Your task to perform on an android device: Search for a new blush Image 0: 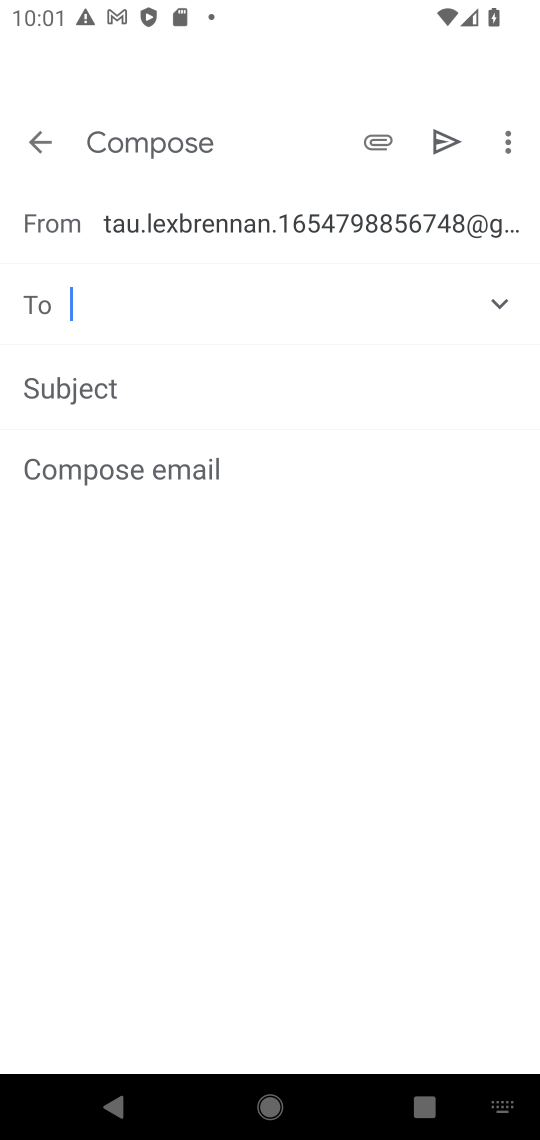
Step 0: press home button
Your task to perform on an android device: Search for a new blush Image 1: 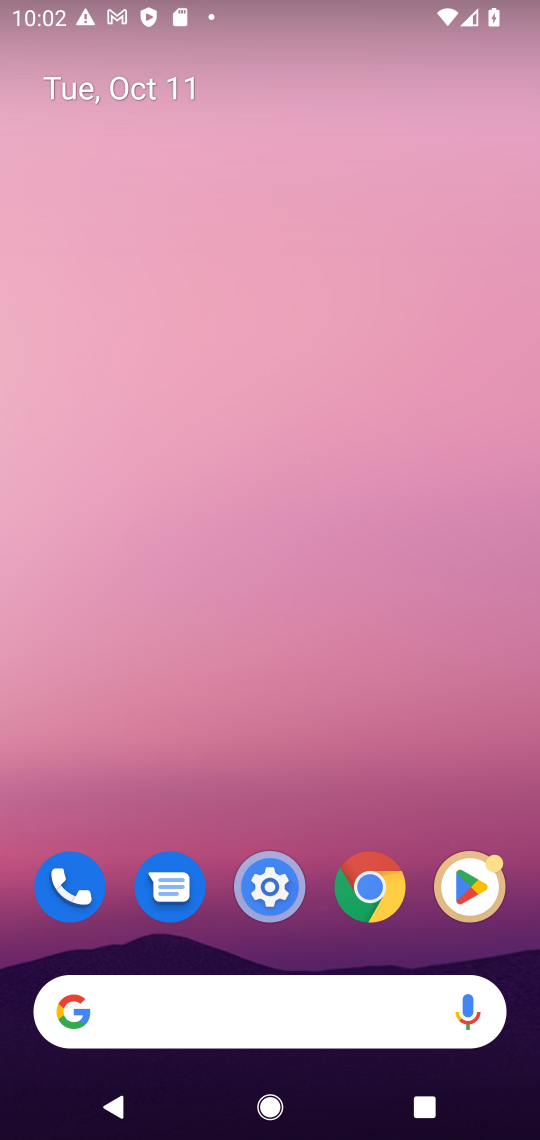
Step 1: click (92, 1010)
Your task to perform on an android device: Search for a new blush Image 2: 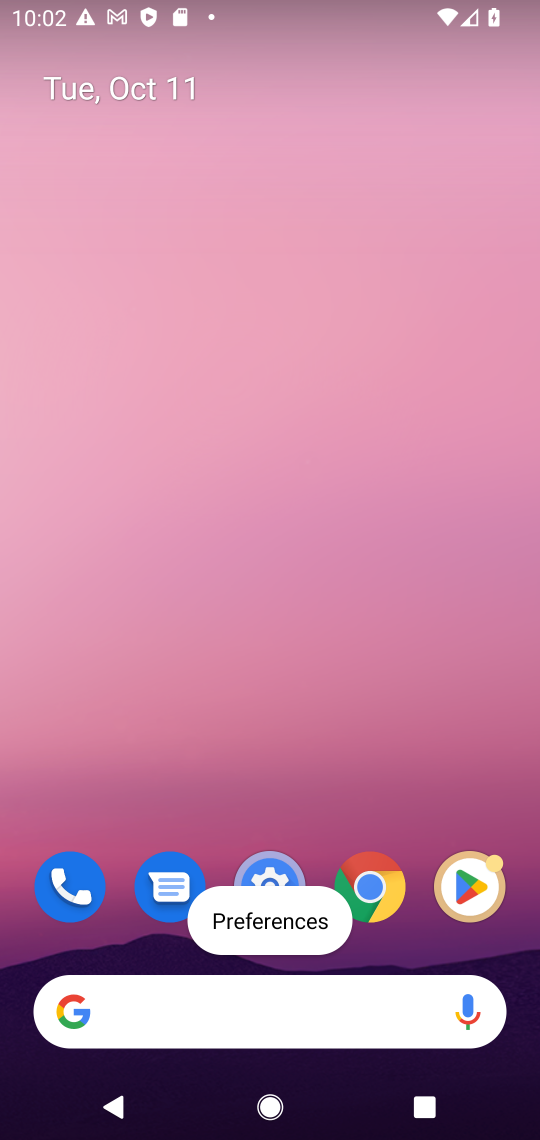
Step 2: click (126, 1008)
Your task to perform on an android device: Search for a new blush Image 3: 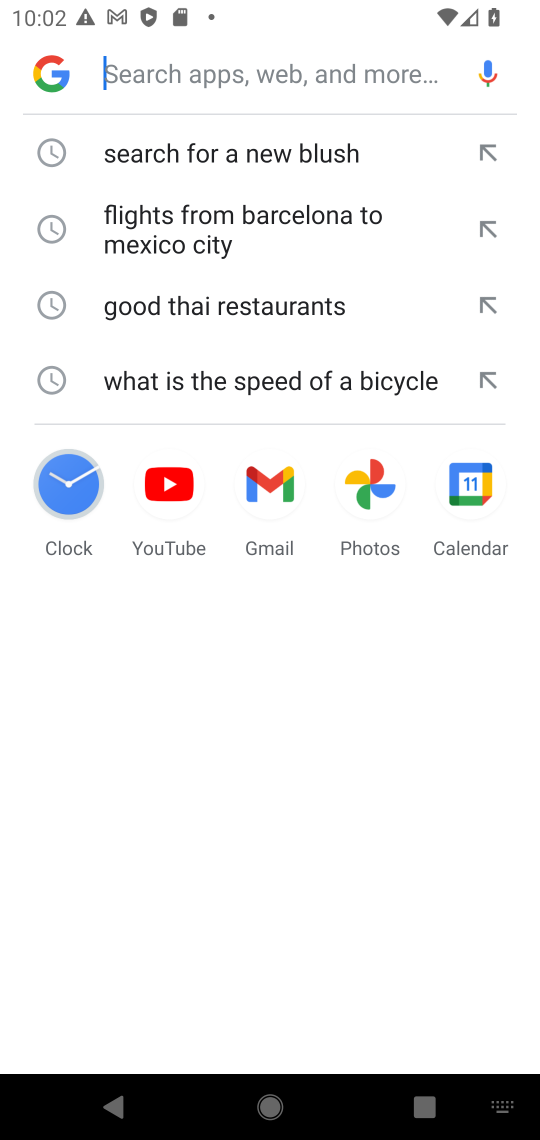
Step 3: type "Search for a new blush"
Your task to perform on an android device: Search for a new blush Image 4: 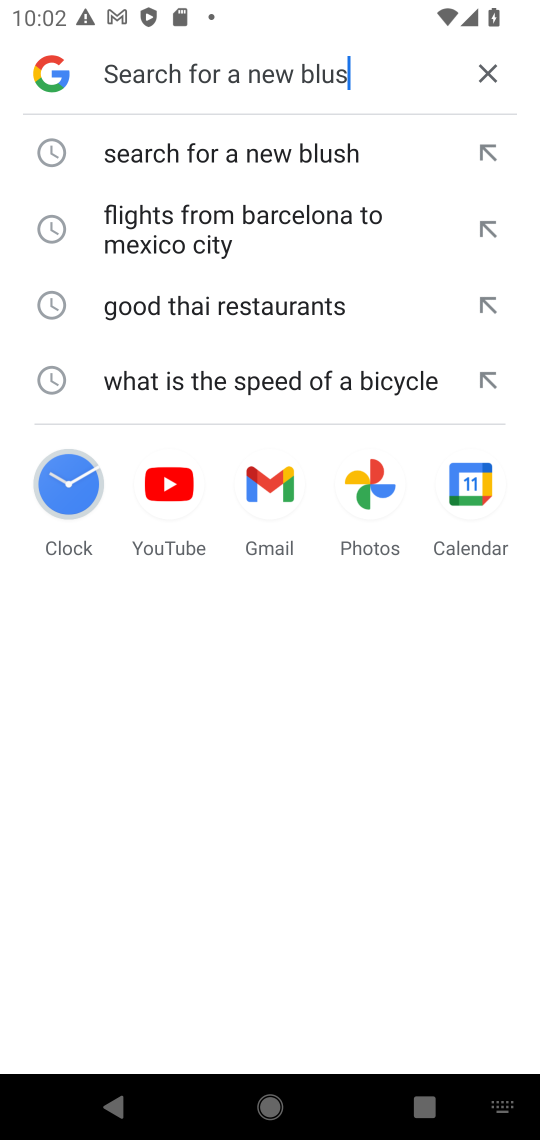
Step 4: press enter
Your task to perform on an android device: Search for a new blush Image 5: 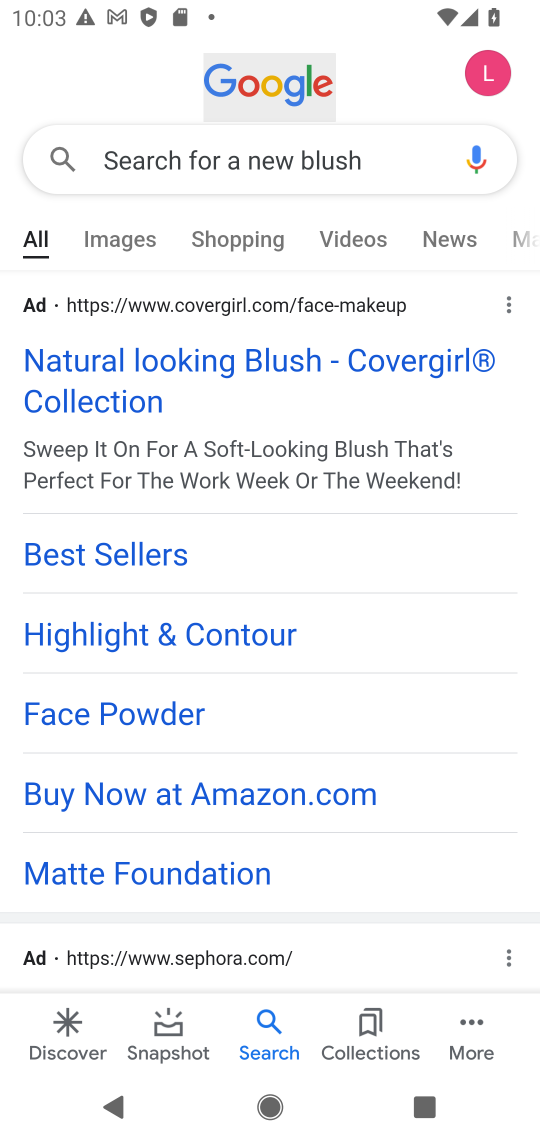
Step 5: click (246, 371)
Your task to perform on an android device: Search for a new blush Image 6: 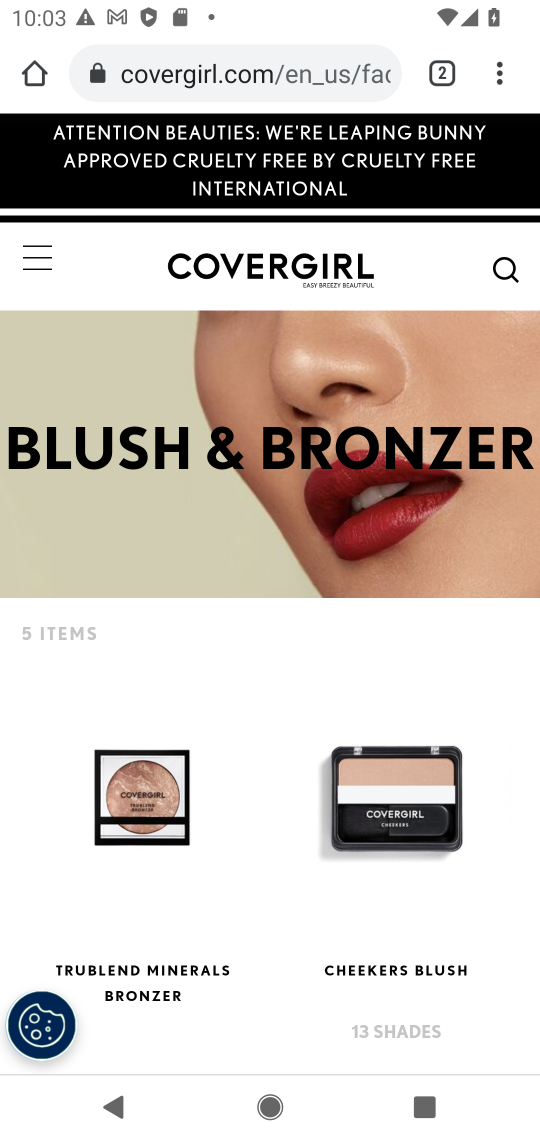
Step 6: task complete